Your task to perform on an android device: Open calendar and show me the fourth week of next month Image 0: 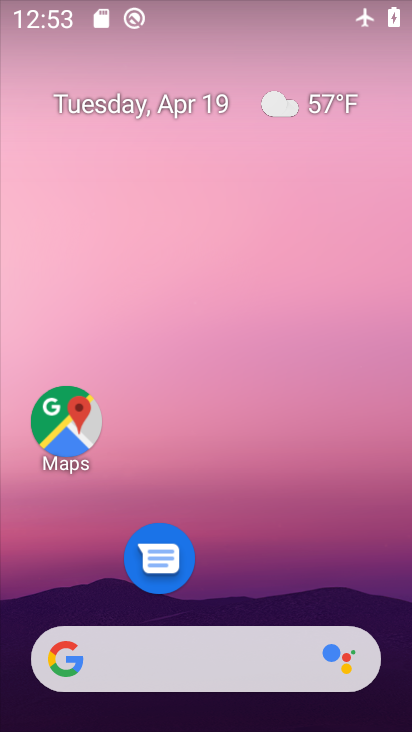
Step 0: drag from (247, 488) to (57, 66)
Your task to perform on an android device: Open calendar and show me the fourth week of next month Image 1: 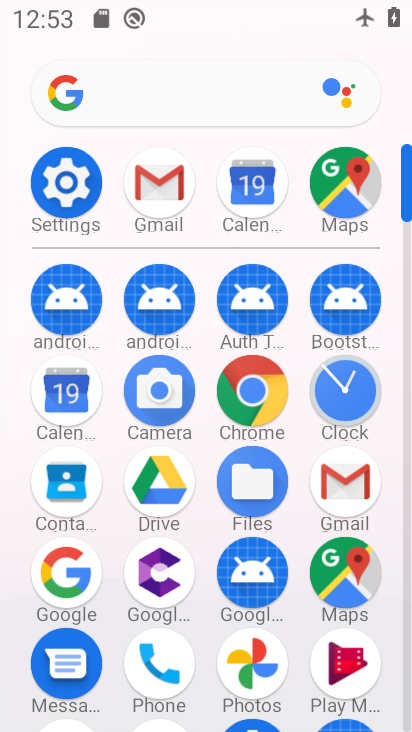
Step 1: click (65, 401)
Your task to perform on an android device: Open calendar and show me the fourth week of next month Image 2: 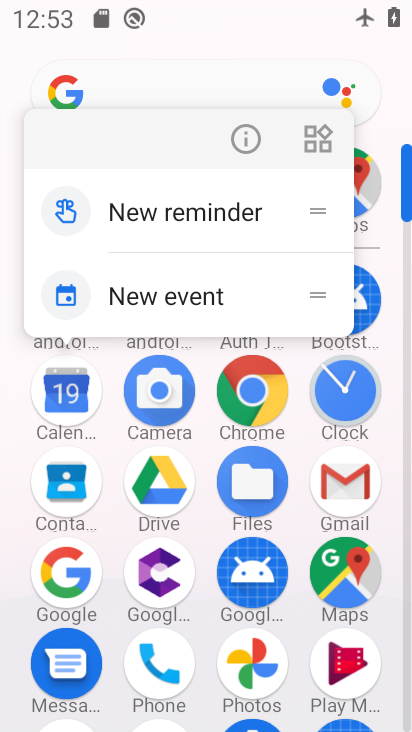
Step 2: click (65, 401)
Your task to perform on an android device: Open calendar and show me the fourth week of next month Image 3: 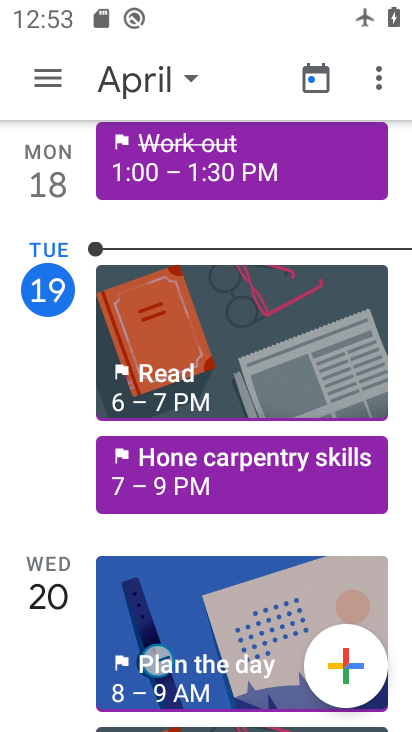
Step 3: click (51, 82)
Your task to perform on an android device: Open calendar and show me the fourth week of next month Image 4: 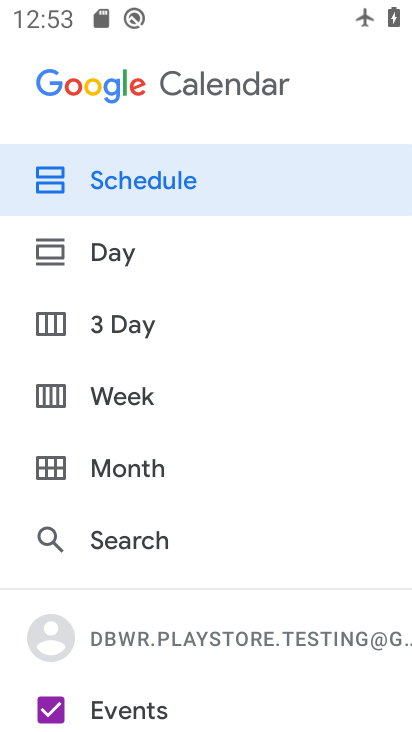
Step 4: click (151, 458)
Your task to perform on an android device: Open calendar and show me the fourth week of next month Image 5: 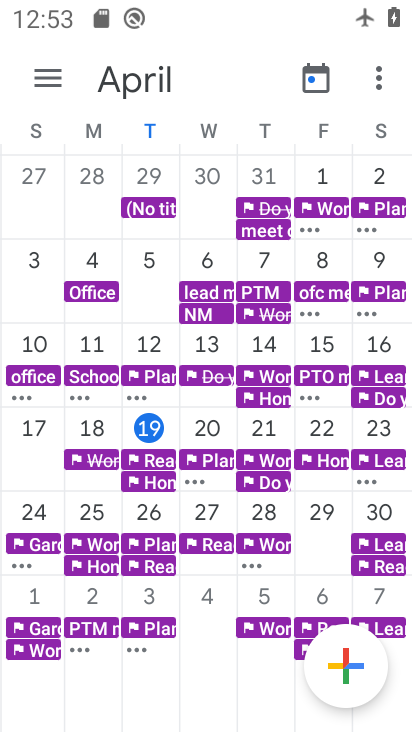
Step 5: task complete